Your task to perform on an android device: Open display settings Image 0: 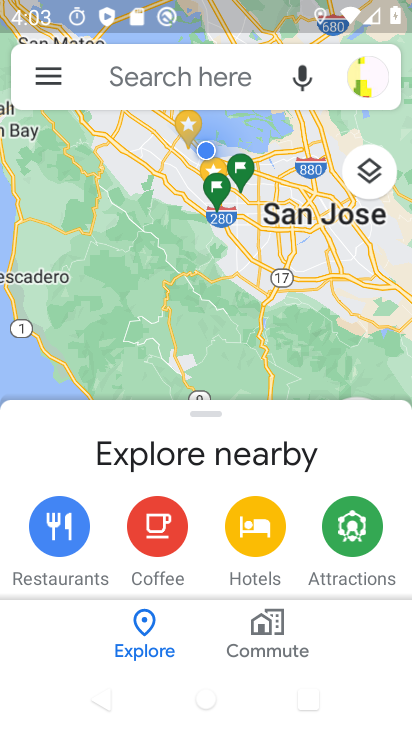
Step 0: press back button
Your task to perform on an android device: Open display settings Image 1: 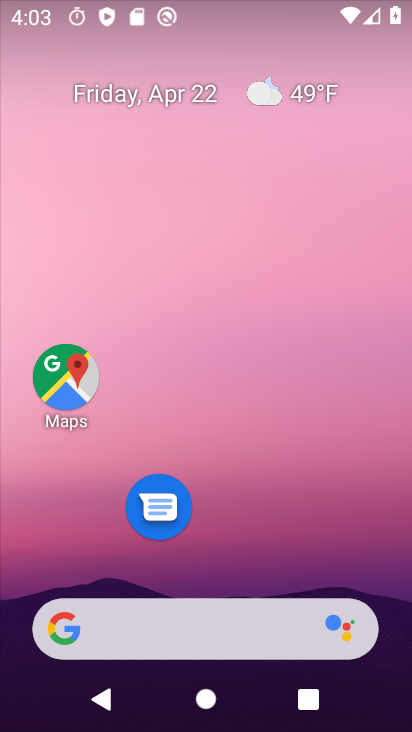
Step 1: drag from (209, 507) to (327, 96)
Your task to perform on an android device: Open display settings Image 2: 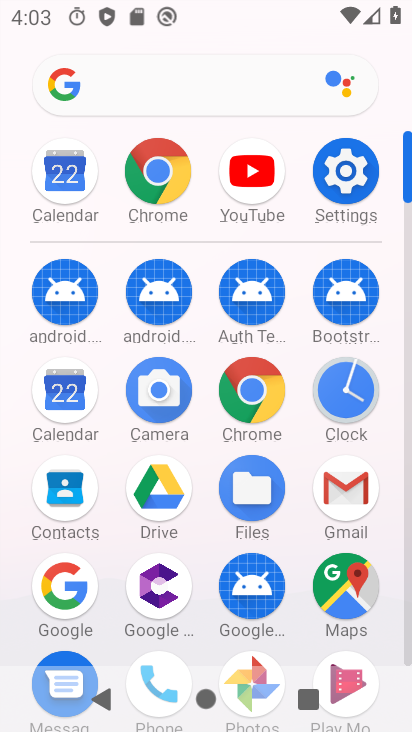
Step 2: click (339, 176)
Your task to perform on an android device: Open display settings Image 3: 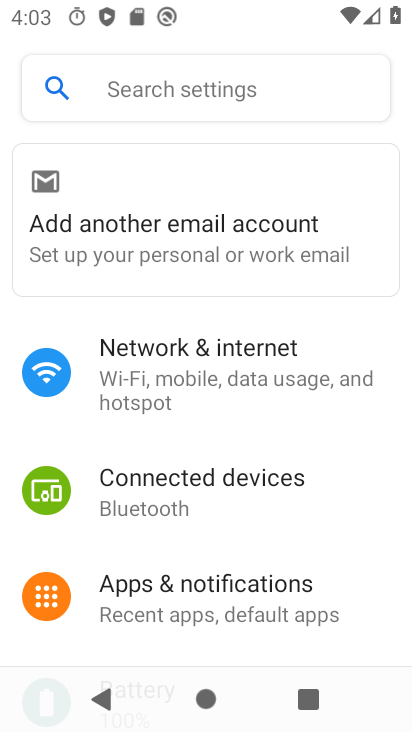
Step 3: drag from (262, 466) to (310, 70)
Your task to perform on an android device: Open display settings Image 4: 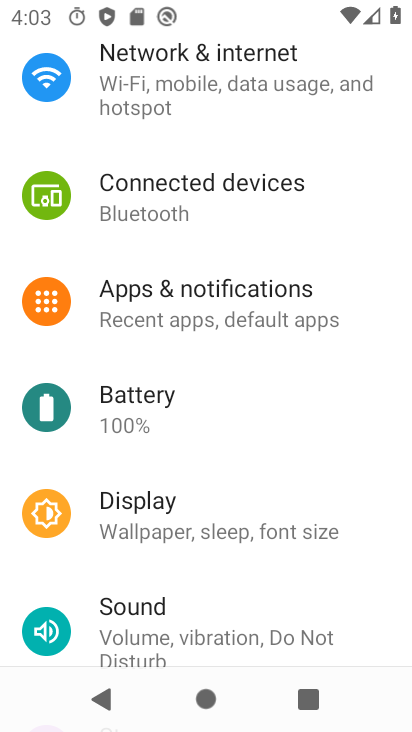
Step 4: click (188, 503)
Your task to perform on an android device: Open display settings Image 5: 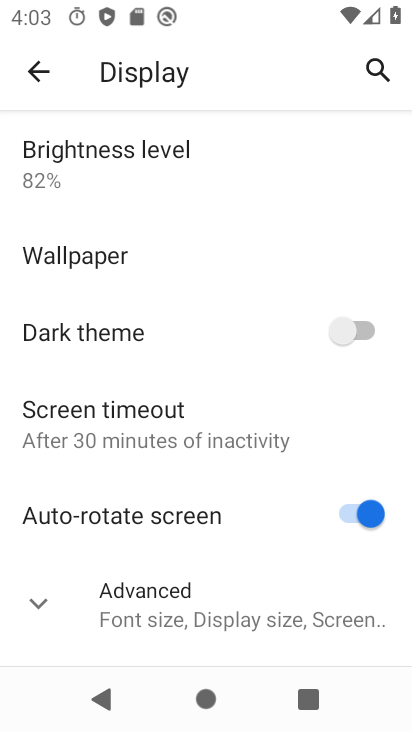
Step 5: task complete